Your task to perform on an android device: Go to wifi settings Image 0: 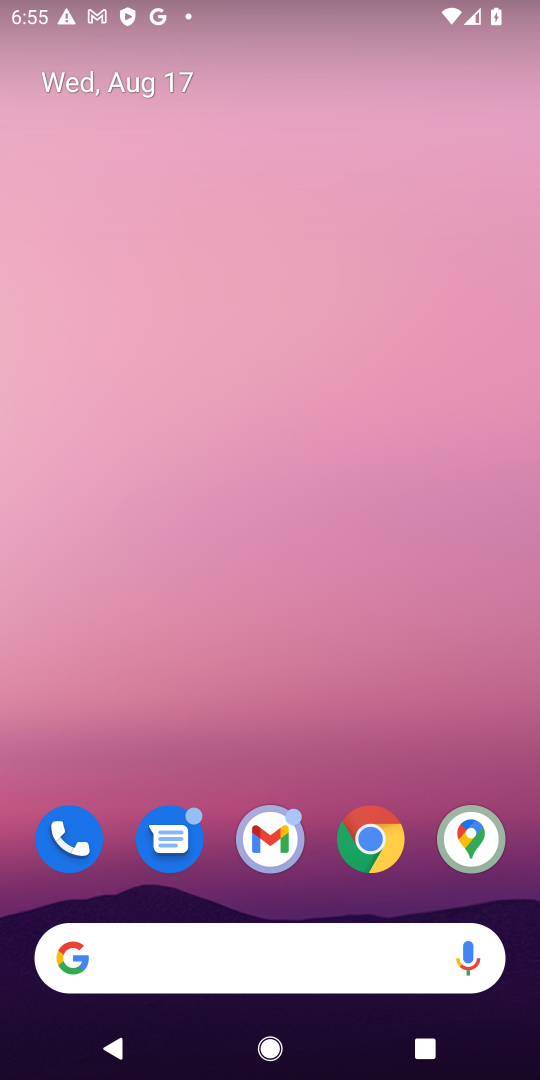
Step 0: drag from (341, 499) to (250, 70)
Your task to perform on an android device: Go to wifi settings Image 1: 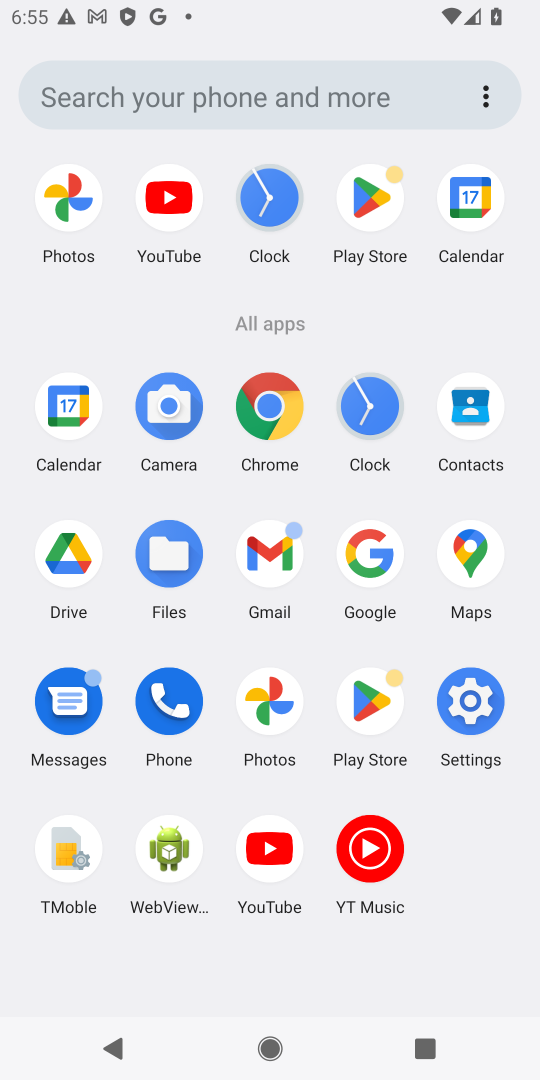
Step 1: click (470, 717)
Your task to perform on an android device: Go to wifi settings Image 2: 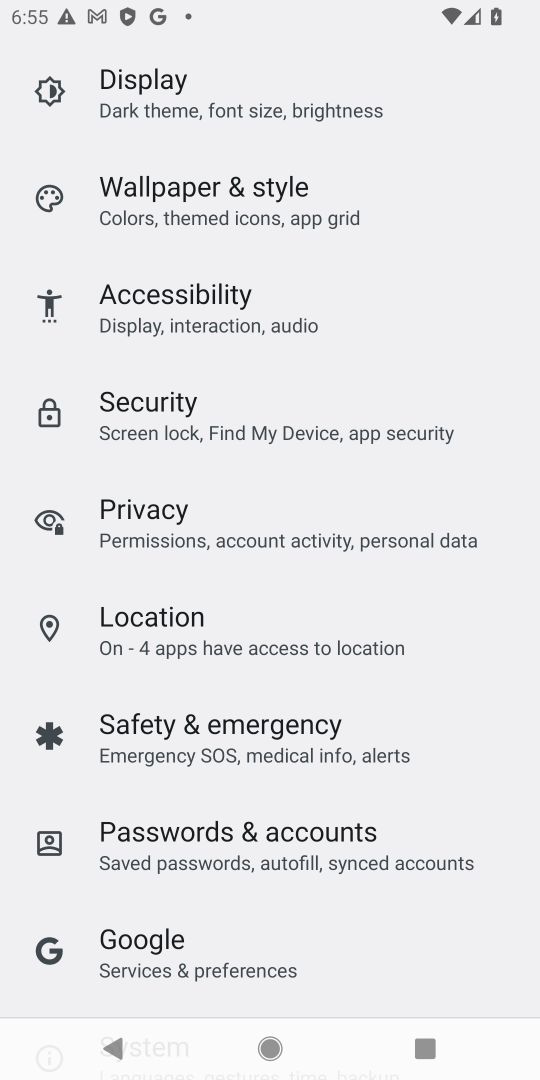
Step 2: drag from (324, 225) to (330, 724)
Your task to perform on an android device: Go to wifi settings Image 3: 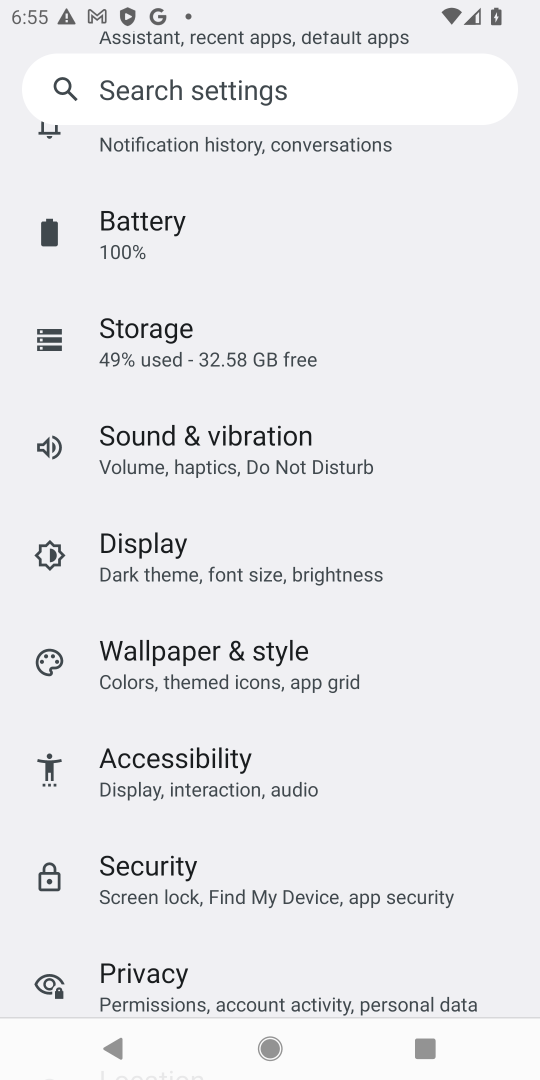
Step 3: drag from (225, 214) to (53, 673)
Your task to perform on an android device: Go to wifi settings Image 4: 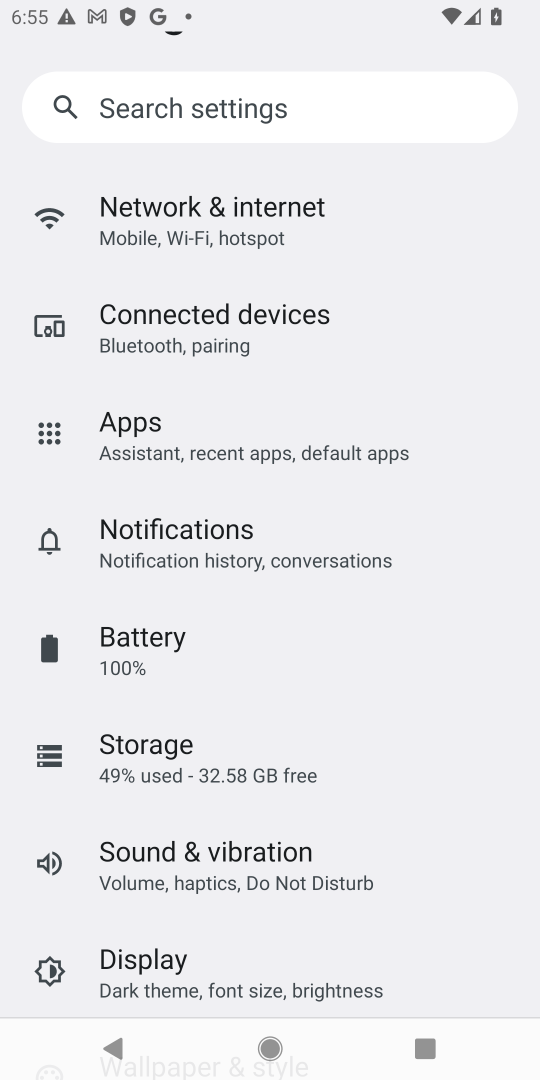
Step 4: click (147, 238)
Your task to perform on an android device: Go to wifi settings Image 5: 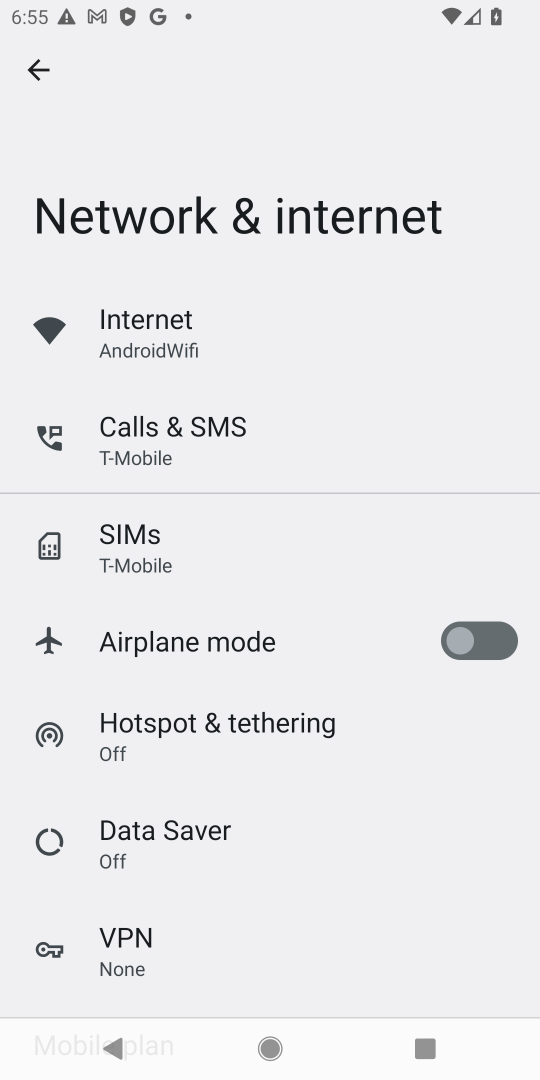
Step 5: click (141, 356)
Your task to perform on an android device: Go to wifi settings Image 6: 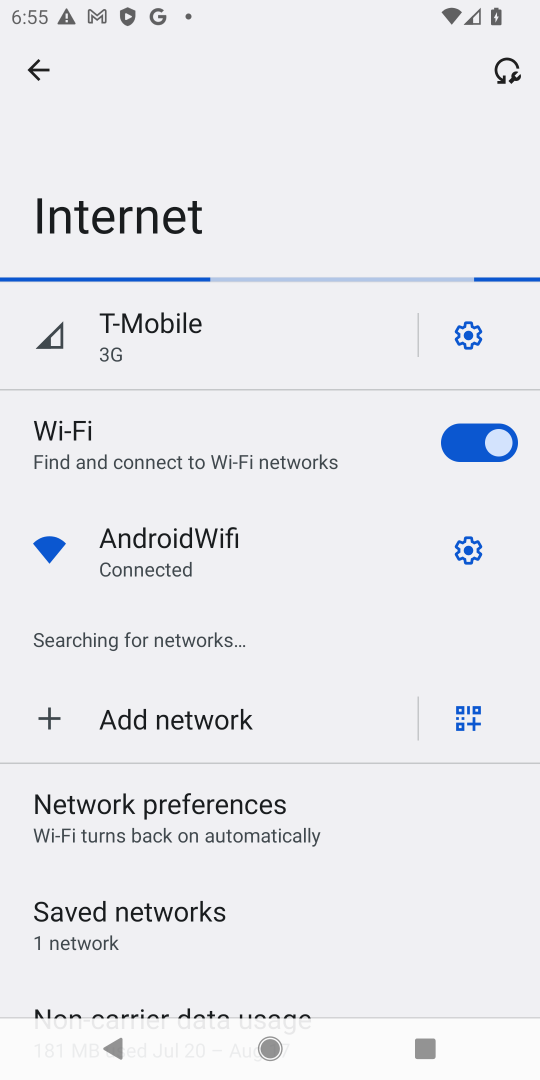
Step 6: task complete